Your task to perform on an android device: turn off improve location accuracy Image 0: 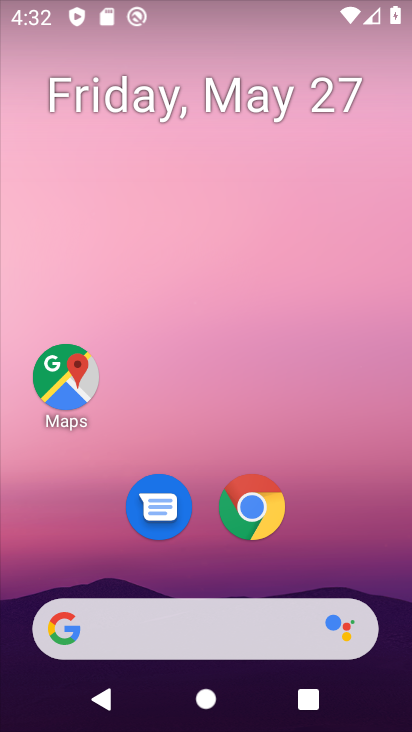
Step 0: drag from (309, 561) to (273, 88)
Your task to perform on an android device: turn off improve location accuracy Image 1: 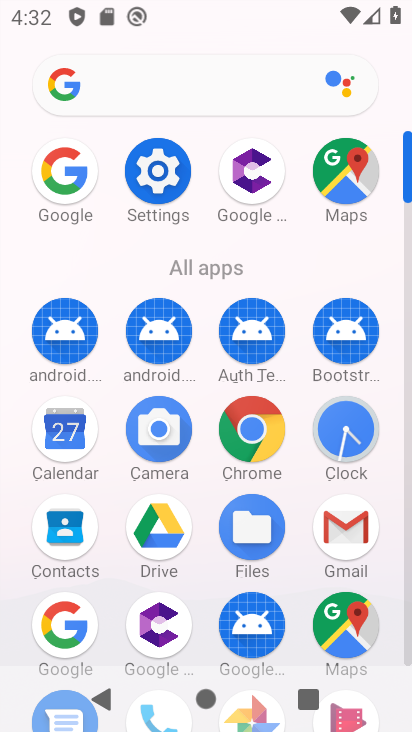
Step 1: click (156, 168)
Your task to perform on an android device: turn off improve location accuracy Image 2: 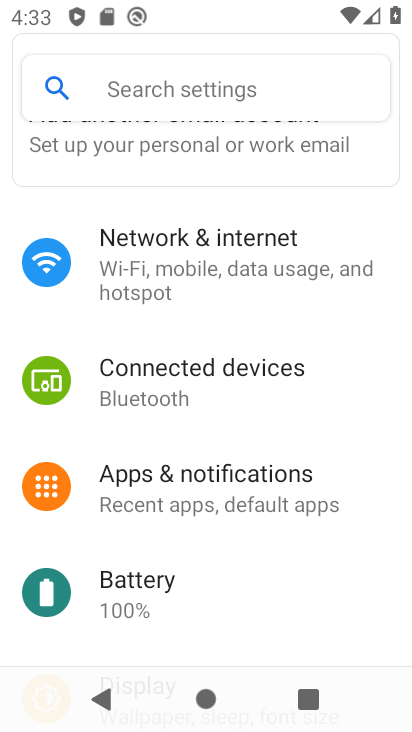
Step 2: drag from (237, 399) to (259, 356)
Your task to perform on an android device: turn off improve location accuracy Image 3: 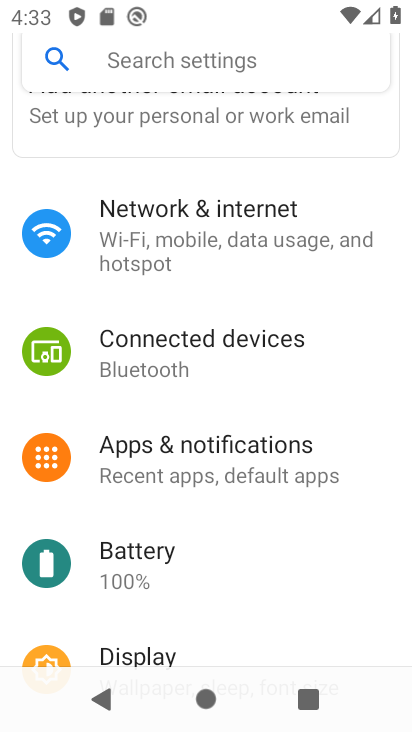
Step 3: drag from (216, 515) to (284, 409)
Your task to perform on an android device: turn off improve location accuracy Image 4: 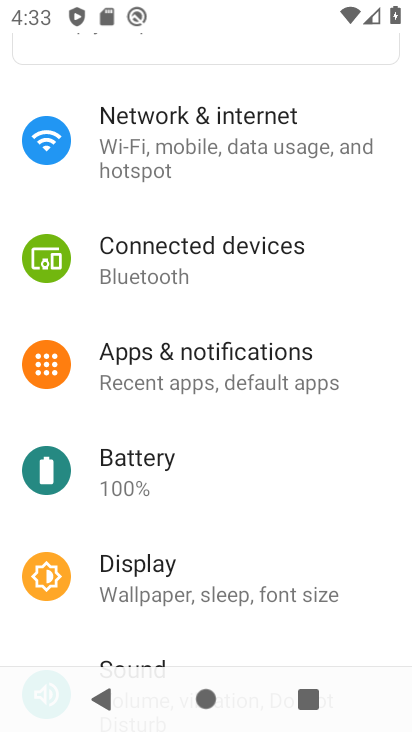
Step 4: drag from (202, 509) to (274, 411)
Your task to perform on an android device: turn off improve location accuracy Image 5: 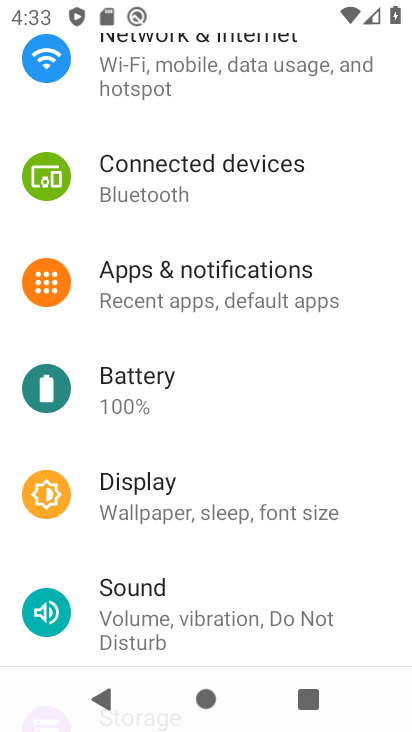
Step 5: drag from (229, 466) to (277, 391)
Your task to perform on an android device: turn off improve location accuracy Image 6: 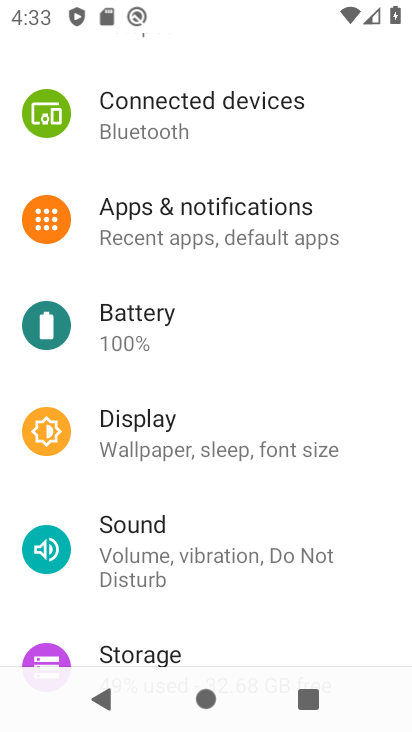
Step 6: drag from (175, 485) to (224, 397)
Your task to perform on an android device: turn off improve location accuracy Image 7: 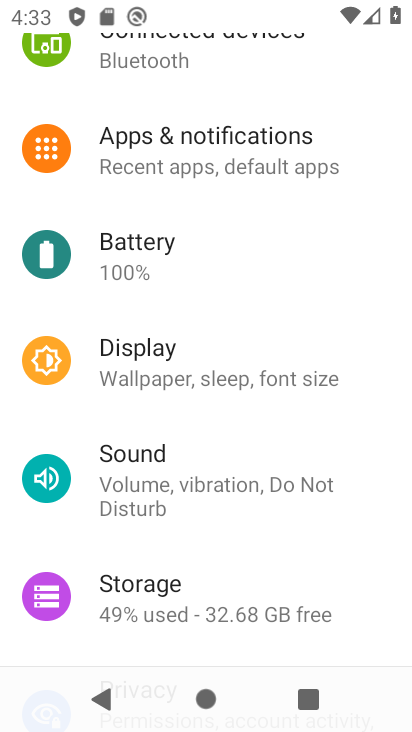
Step 7: drag from (146, 551) to (205, 442)
Your task to perform on an android device: turn off improve location accuracy Image 8: 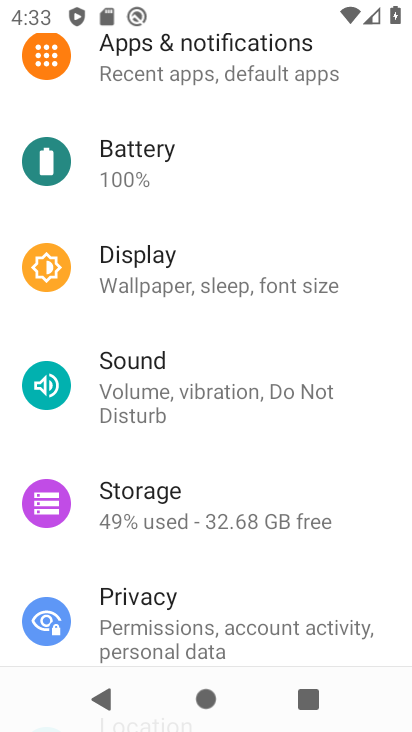
Step 8: drag from (139, 552) to (221, 453)
Your task to perform on an android device: turn off improve location accuracy Image 9: 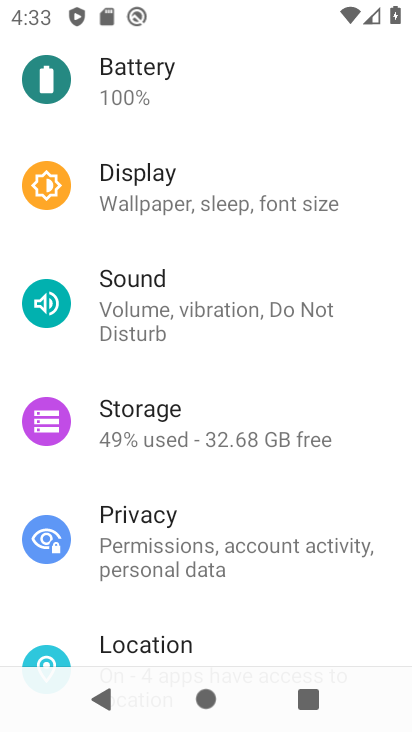
Step 9: drag from (144, 598) to (237, 491)
Your task to perform on an android device: turn off improve location accuracy Image 10: 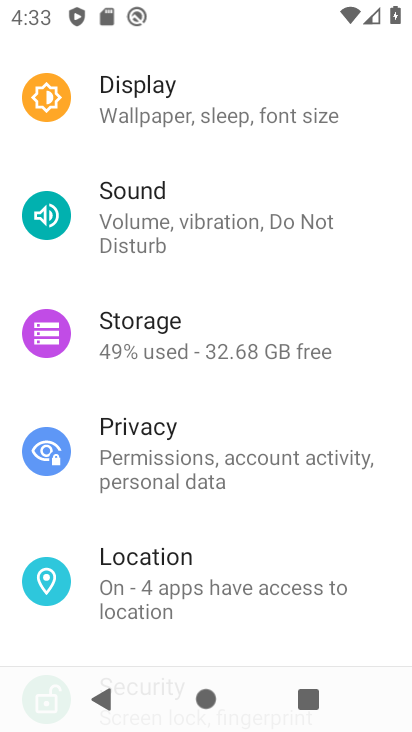
Step 10: drag from (180, 500) to (274, 391)
Your task to perform on an android device: turn off improve location accuracy Image 11: 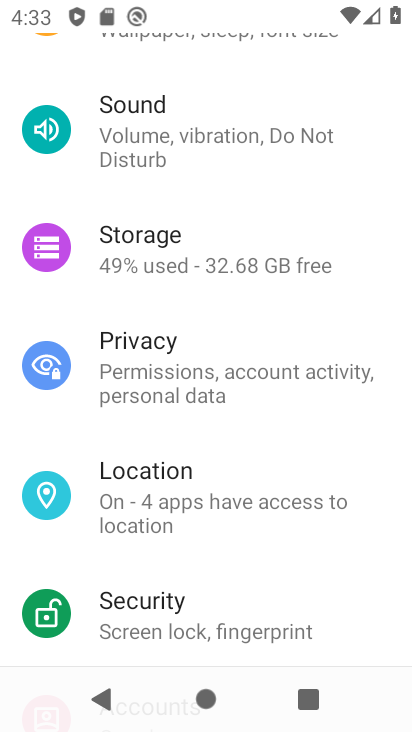
Step 11: click (170, 489)
Your task to perform on an android device: turn off improve location accuracy Image 12: 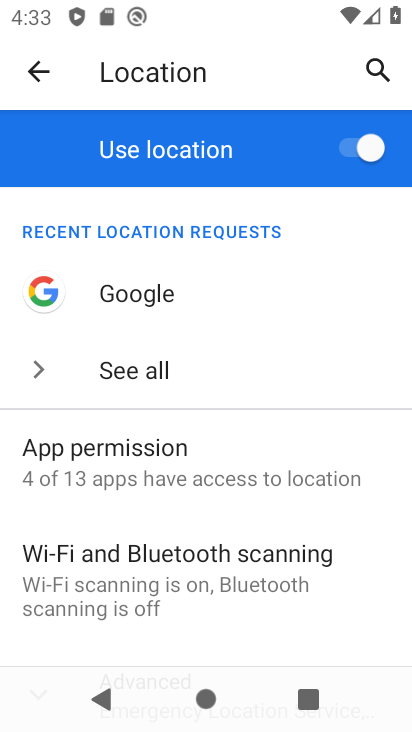
Step 12: drag from (121, 516) to (182, 407)
Your task to perform on an android device: turn off improve location accuracy Image 13: 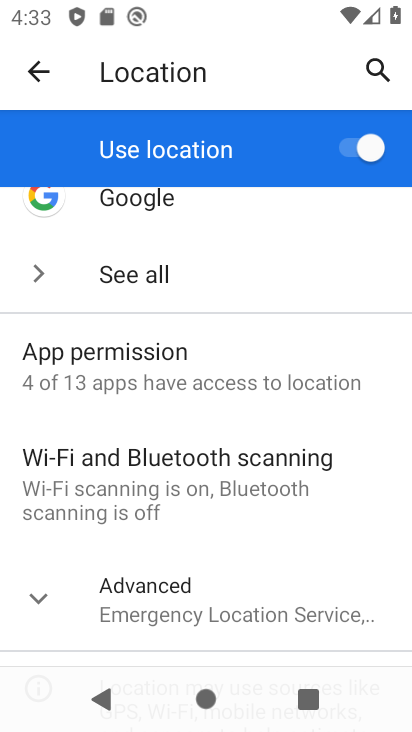
Step 13: drag from (190, 566) to (211, 477)
Your task to perform on an android device: turn off improve location accuracy Image 14: 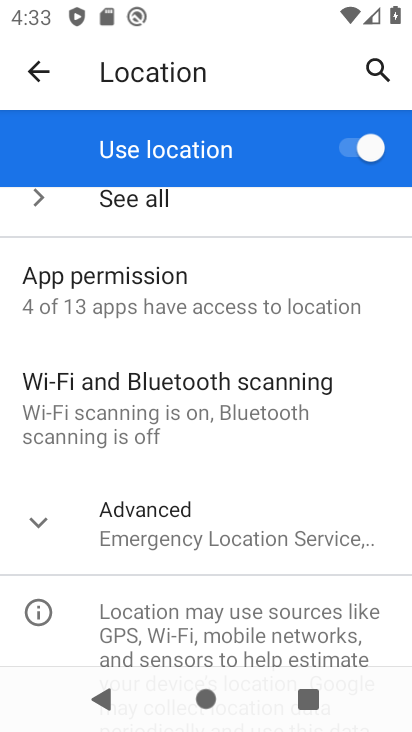
Step 14: click (210, 533)
Your task to perform on an android device: turn off improve location accuracy Image 15: 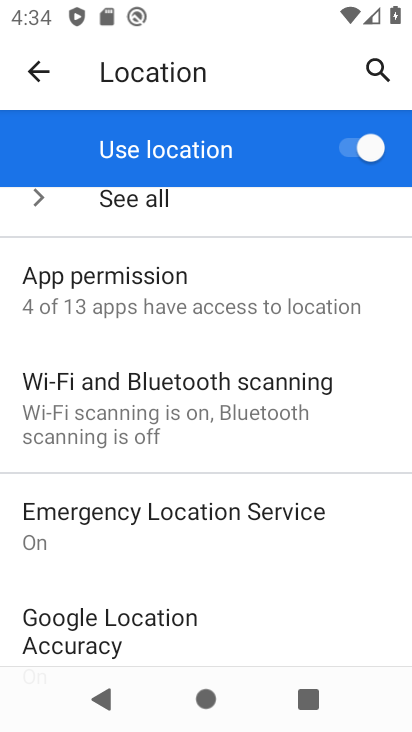
Step 15: drag from (131, 592) to (211, 461)
Your task to perform on an android device: turn off improve location accuracy Image 16: 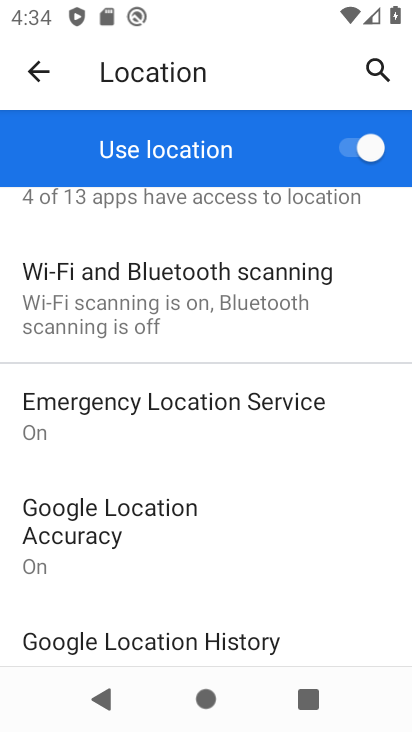
Step 16: click (95, 518)
Your task to perform on an android device: turn off improve location accuracy Image 17: 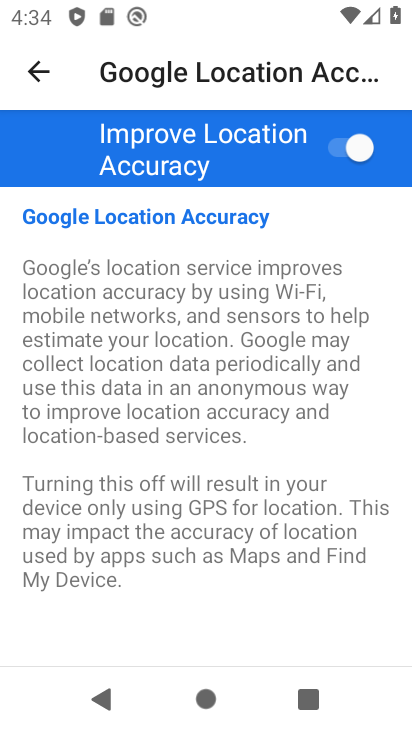
Step 17: click (335, 144)
Your task to perform on an android device: turn off improve location accuracy Image 18: 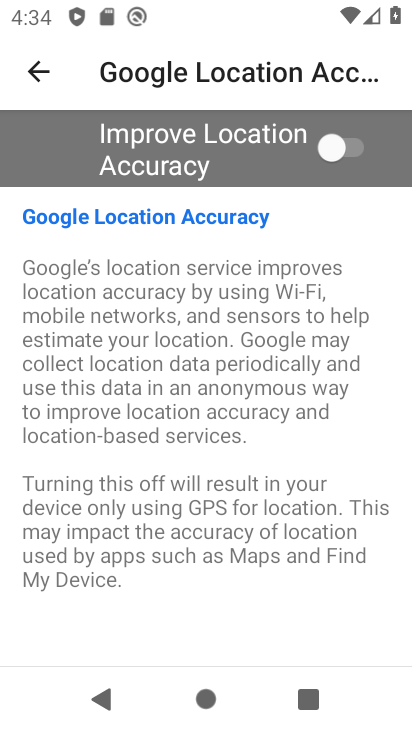
Step 18: task complete